Your task to perform on an android device: see creations saved in the google photos Image 0: 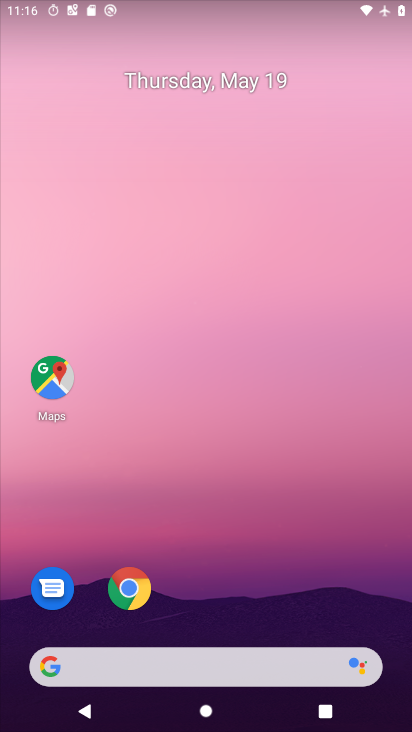
Step 0: drag from (144, 661) to (238, 213)
Your task to perform on an android device: see creations saved in the google photos Image 1: 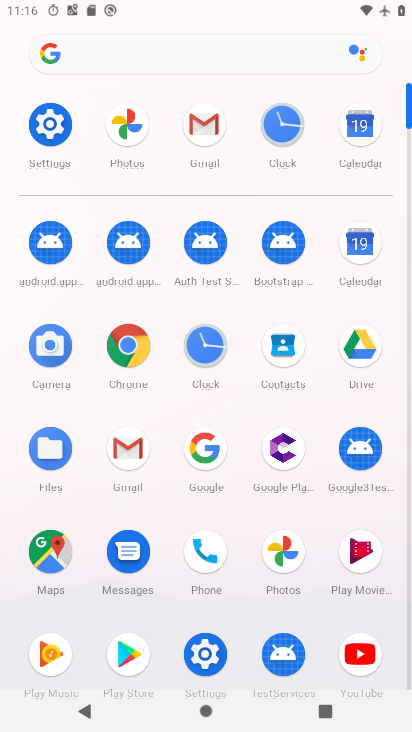
Step 1: click (280, 556)
Your task to perform on an android device: see creations saved in the google photos Image 2: 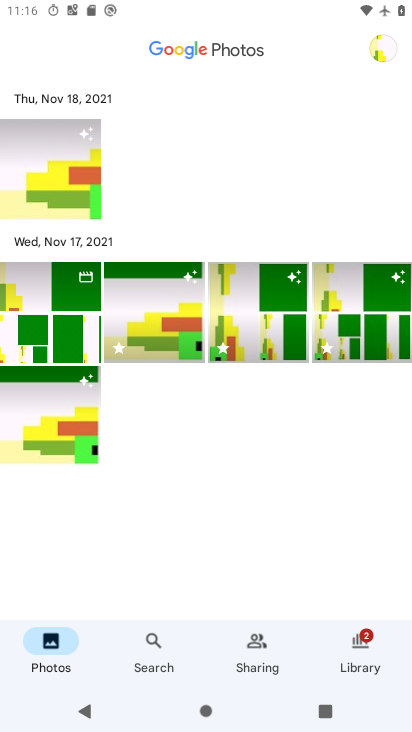
Step 2: click (157, 661)
Your task to perform on an android device: see creations saved in the google photos Image 3: 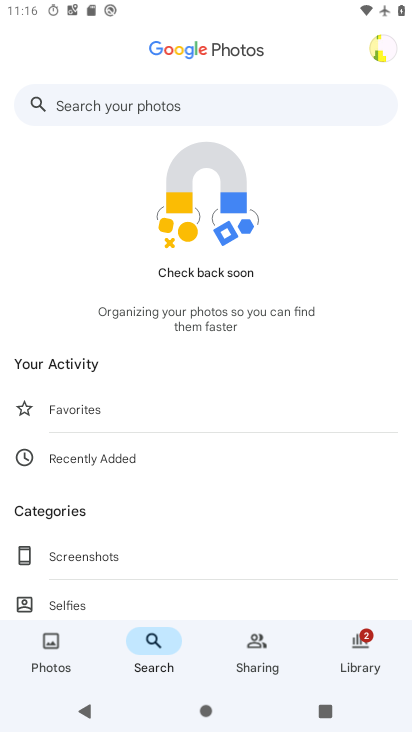
Step 3: drag from (163, 569) to (239, 169)
Your task to perform on an android device: see creations saved in the google photos Image 4: 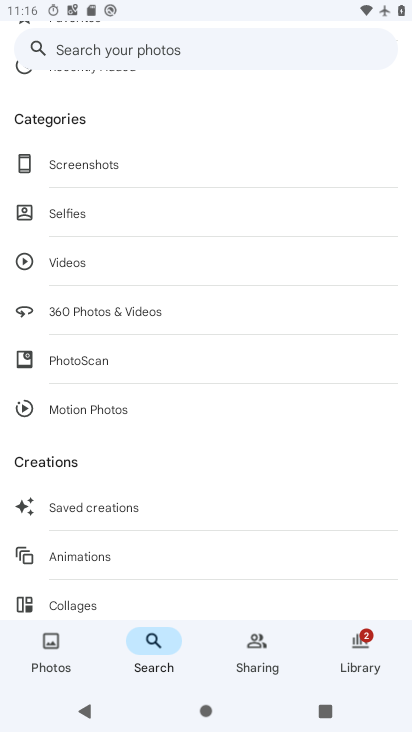
Step 4: click (116, 512)
Your task to perform on an android device: see creations saved in the google photos Image 5: 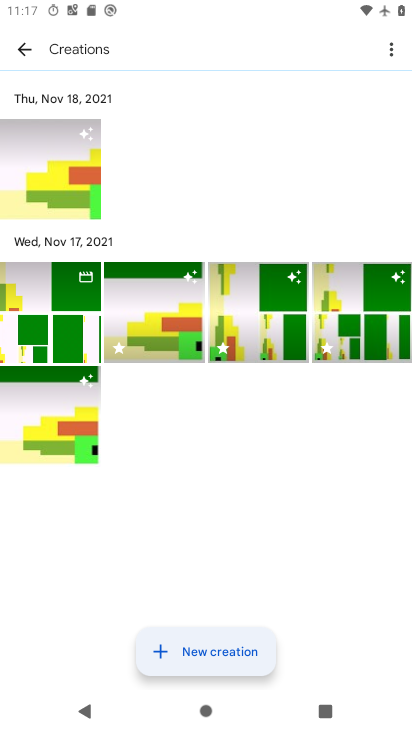
Step 5: task complete